Your task to perform on an android device: Show me productivity apps on the Play Store Image 0: 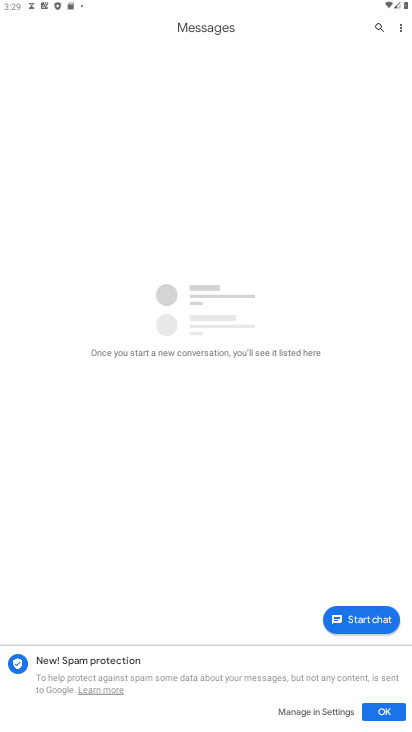
Step 0: press home button
Your task to perform on an android device: Show me productivity apps on the Play Store Image 1: 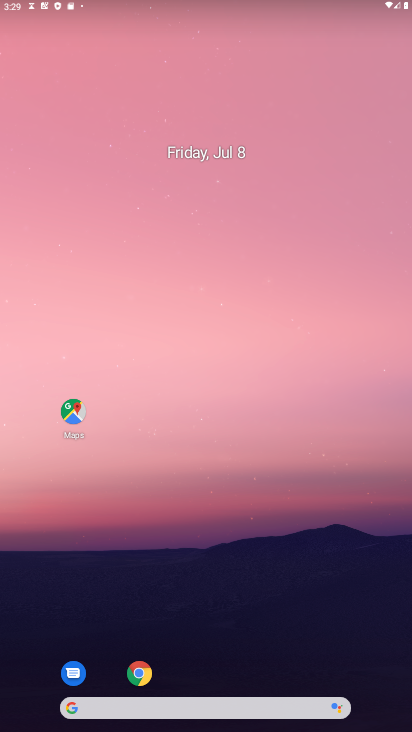
Step 1: drag from (225, 612) to (256, 9)
Your task to perform on an android device: Show me productivity apps on the Play Store Image 2: 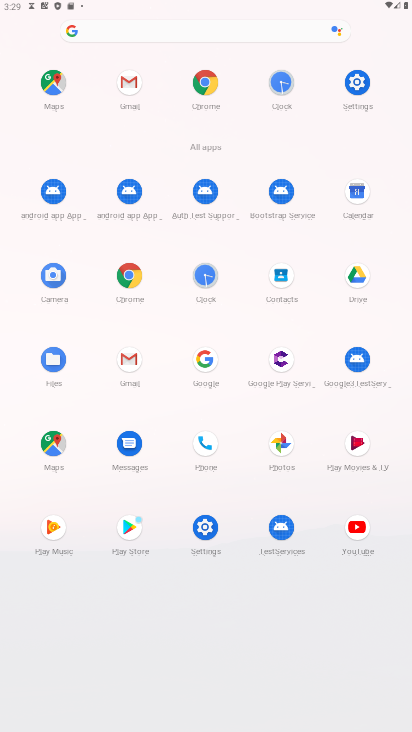
Step 2: click (125, 537)
Your task to perform on an android device: Show me productivity apps on the Play Store Image 3: 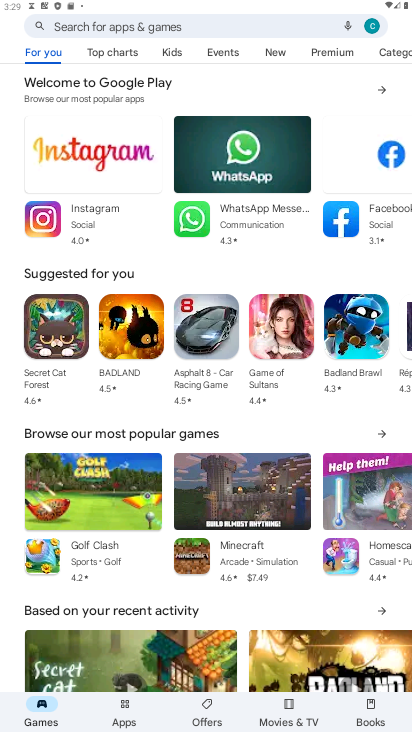
Step 3: click (128, 714)
Your task to perform on an android device: Show me productivity apps on the Play Store Image 4: 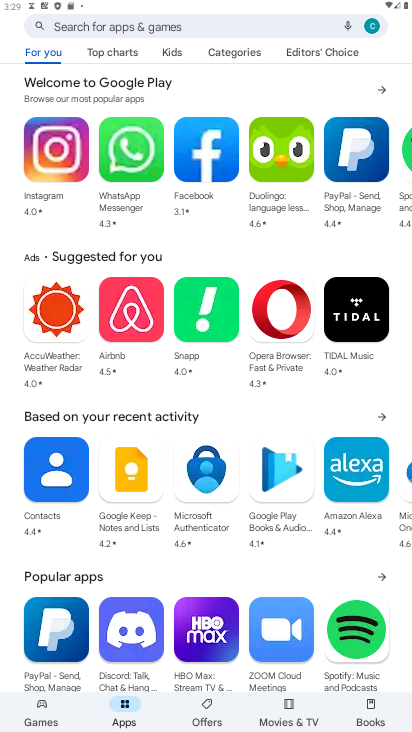
Step 4: click (227, 52)
Your task to perform on an android device: Show me productivity apps on the Play Store Image 5: 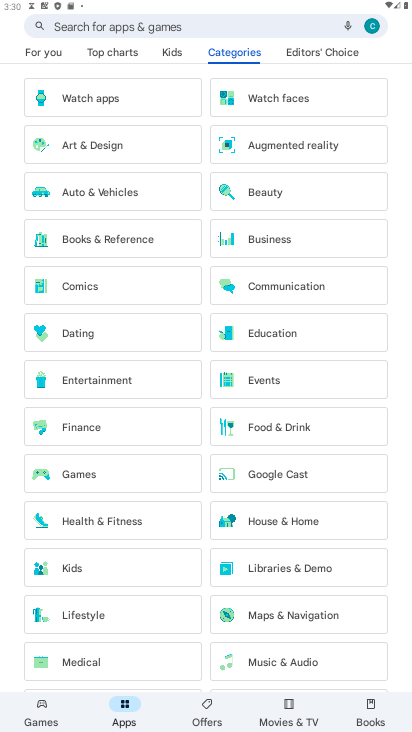
Step 5: drag from (197, 641) to (211, 396)
Your task to perform on an android device: Show me productivity apps on the Play Store Image 6: 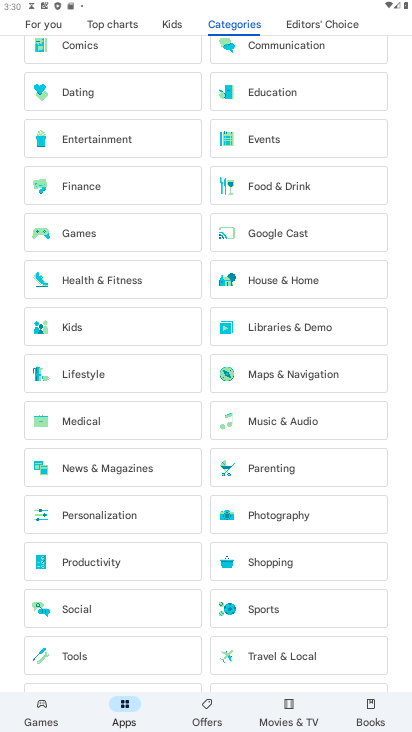
Step 6: click (121, 562)
Your task to perform on an android device: Show me productivity apps on the Play Store Image 7: 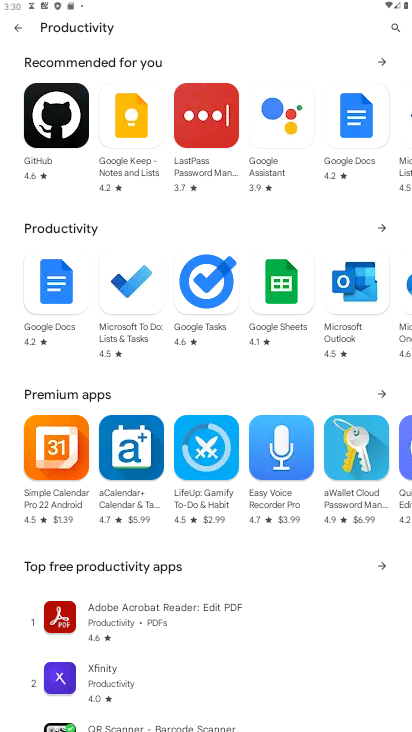
Step 7: task complete